Your task to perform on an android device: toggle translation in the chrome app Image 0: 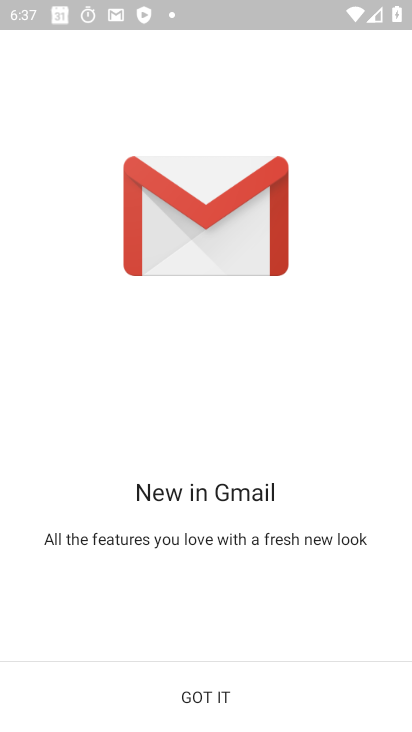
Step 0: press home button
Your task to perform on an android device: toggle translation in the chrome app Image 1: 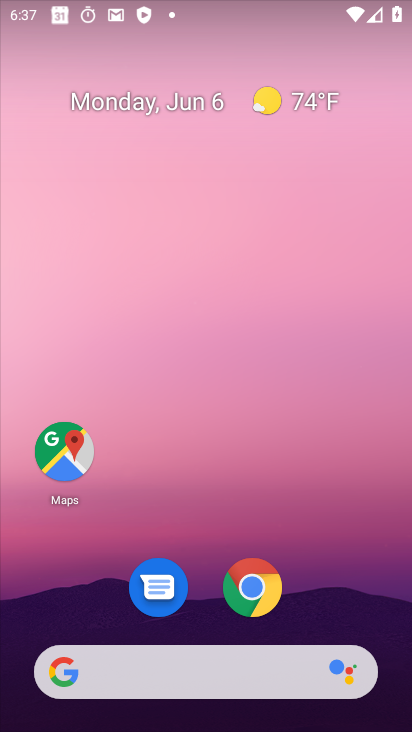
Step 1: drag from (400, 635) to (293, 23)
Your task to perform on an android device: toggle translation in the chrome app Image 2: 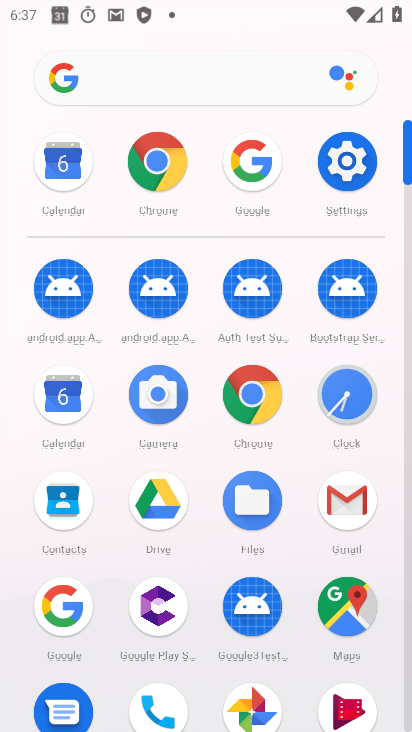
Step 2: click (249, 401)
Your task to perform on an android device: toggle translation in the chrome app Image 3: 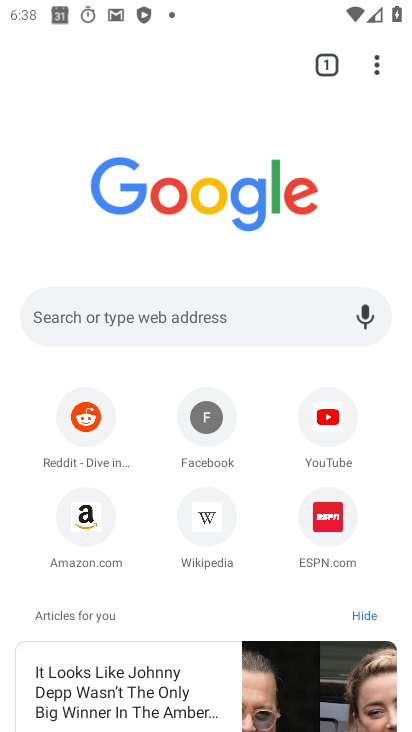
Step 3: click (378, 63)
Your task to perform on an android device: toggle translation in the chrome app Image 4: 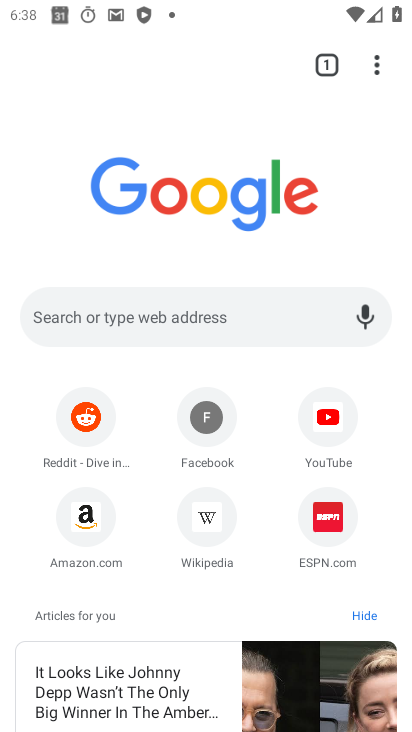
Step 4: click (373, 55)
Your task to perform on an android device: toggle translation in the chrome app Image 5: 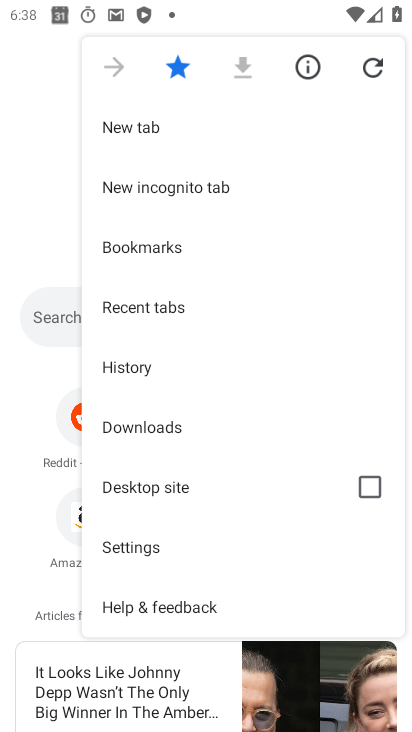
Step 5: click (120, 550)
Your task to perform on an android device: toggle translation in the chrome app Image 6: 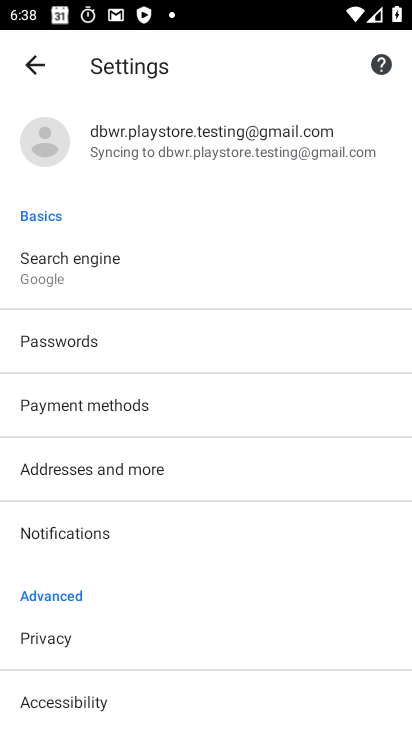
Step 6: drag from (151, 671) to (178, 250)
Your task to perform on an android device: toggle translation in the chrome app Image 7: 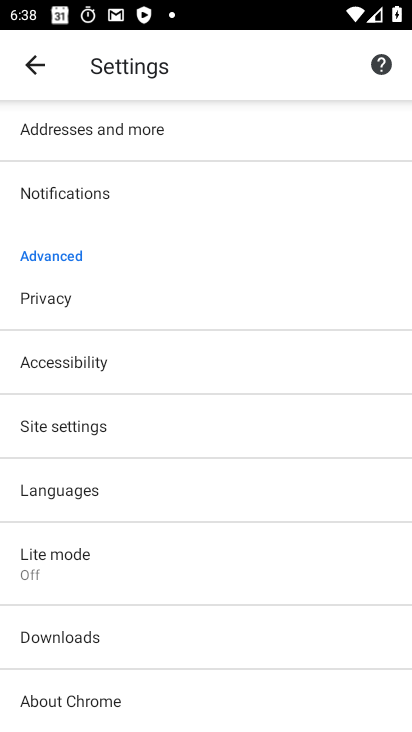
Step 7: click (135, 495)
Your task to perform on an android device: toggle translation in the chrome app Image 8: 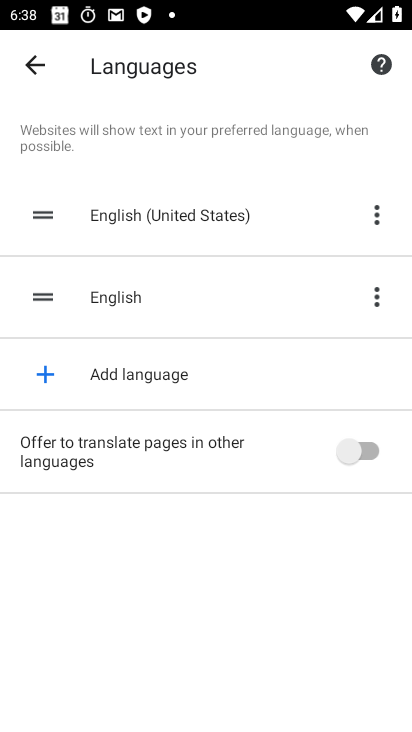
Step 8: click (313, 456)
Your task to perform on an android device: toggle translation in the chrome app Image 9: 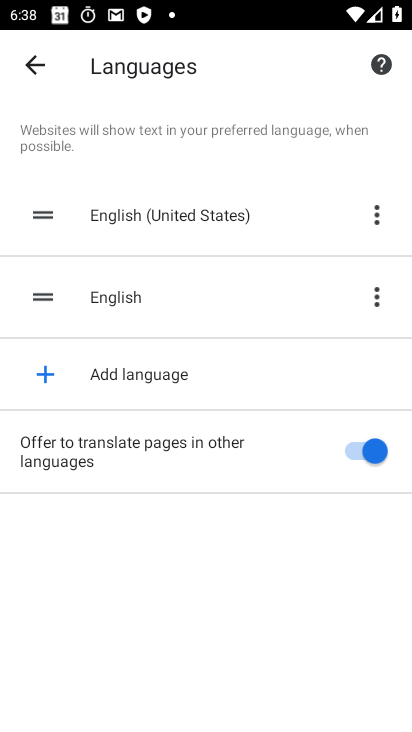
Step 9: task complete